Your task to perform on an android device: move an email to a new category in the gmail app Image 0: 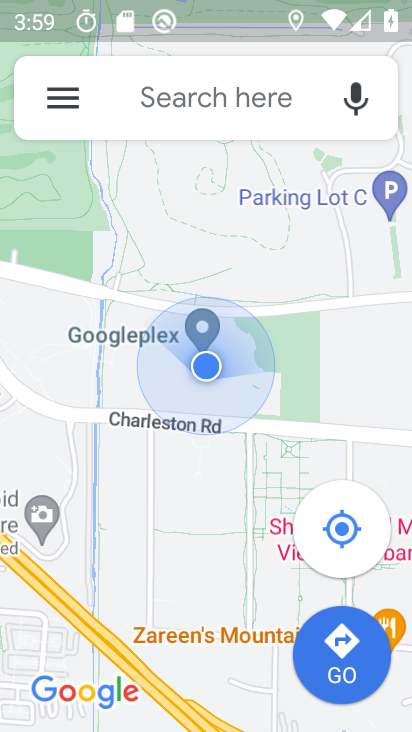
Step 0: press back button
Your task to perform on an android device: move an email to a new category in the gmail app Image 1: 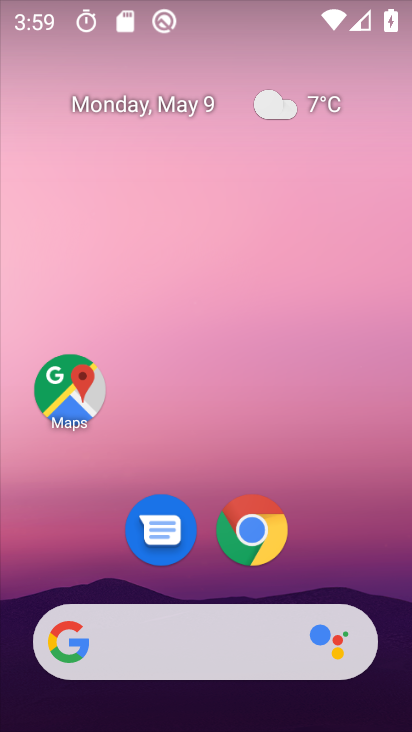
Step 1: drag from (199, 550) to (309, 59)
Your task to perform on an android device: move an email to a new category in the gmail app Image 2: 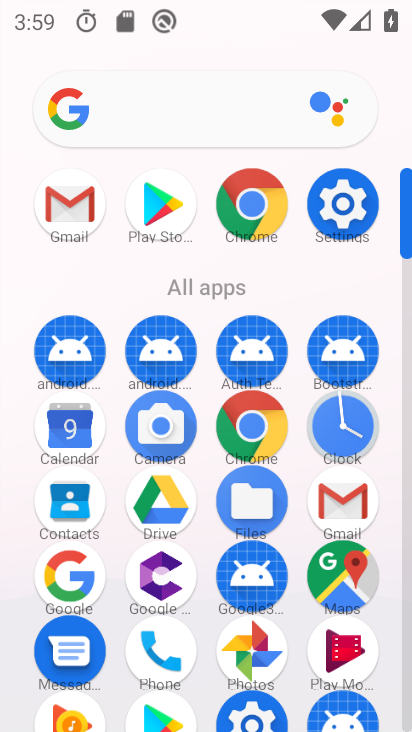
Step 2: click (47, 197)
Your task to perform on an android device: move an email to a new category in the gmail app Image 3: 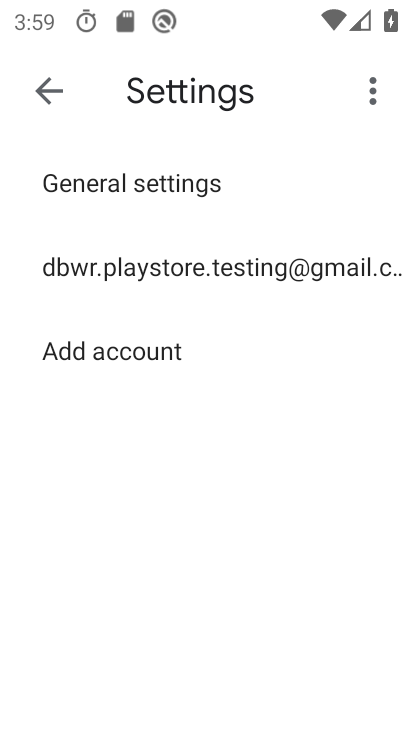
Step 3: click (38, 79)
Your task to perform on an android device: move an email to a new category in the gmail app Image 4: 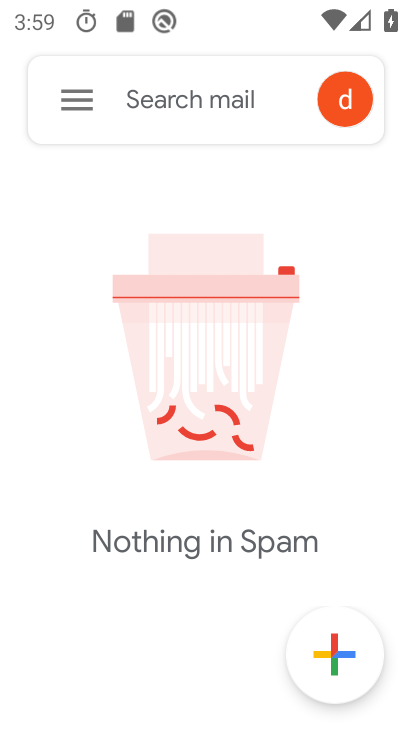
Step 4: click (58, 90)
Your task to perform on an android device: move an email to a new category in the gmail app Image 5: 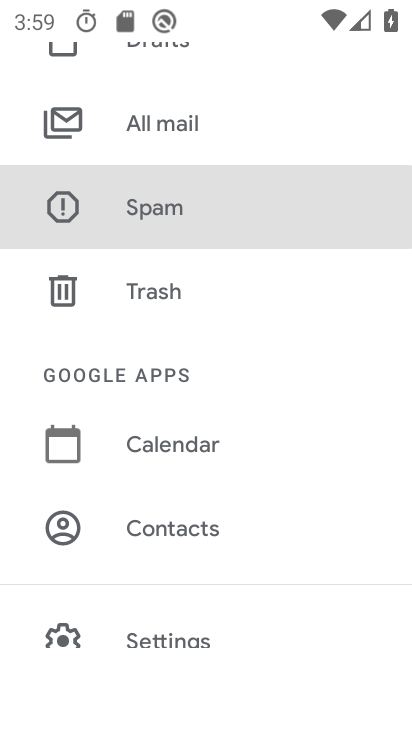
Step 5: click (151, 121)
Your task to perform on an android device: move an email to a new category in the gmail app Image 6: 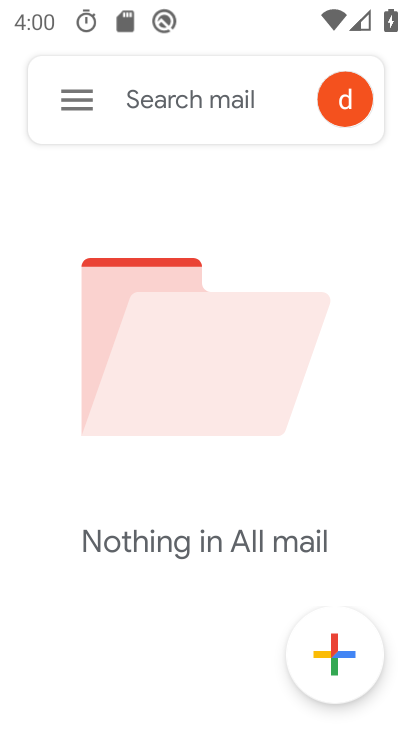
Step 6: task complete